Your task to perform on an android device: toggle notifications settings in the gmail app Image 0: 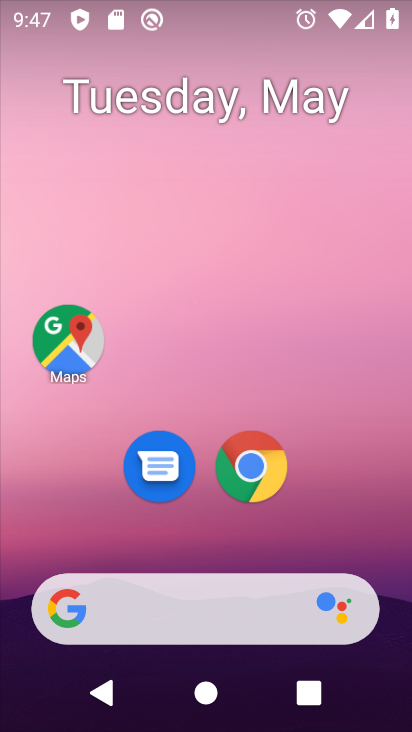
Step 0: drag from (280, 708) to (244, 28)
Your task to perform on an android device: toggle notifications settings in the gmail app Image 1: 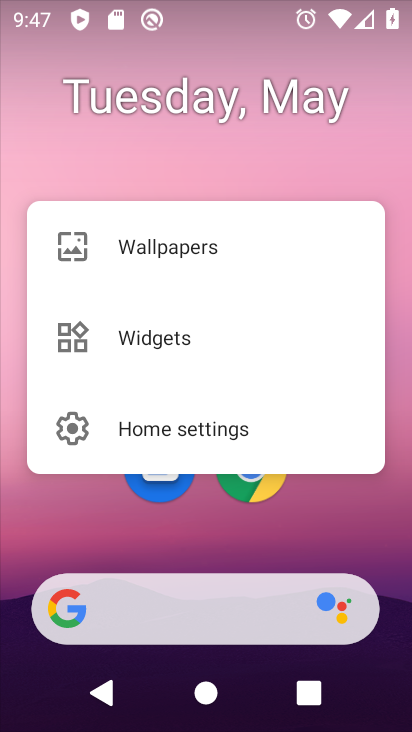
Step 1: press back button
Your task to perform on an android device: toggle notifications settings in the gmail app Image 2: 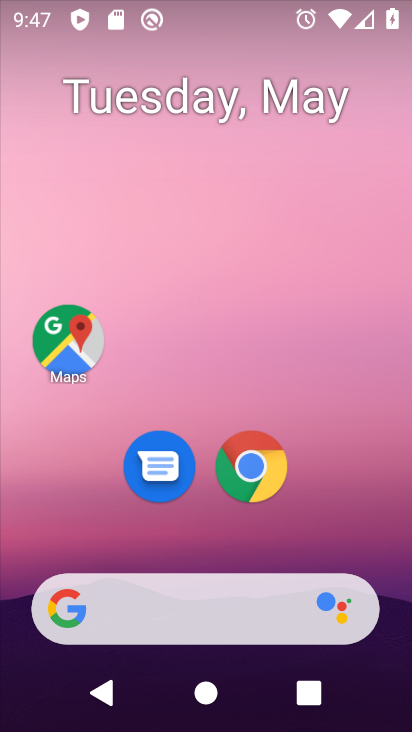
Step 2: click (248, 153)
Your task to perform on an android device: toggle notifications settings in the gmail app Image 3: 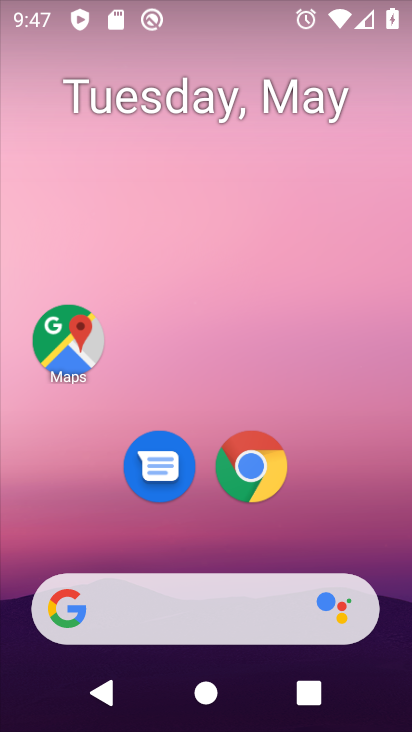
Step 3: drag from (351, 693) to (173, 160)
Your task to perform on an android device: toggle notifications settings in the gmail app Image 4: 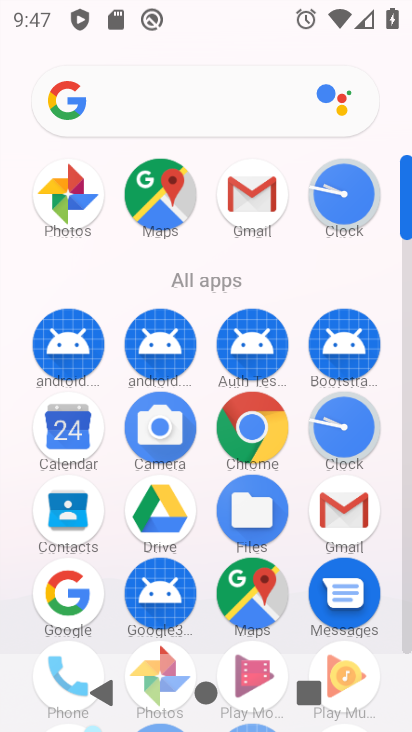
Step 4: click (350, 513)
Your task to perform on an android device: toggle notifications settings in the gmail app Image 5: 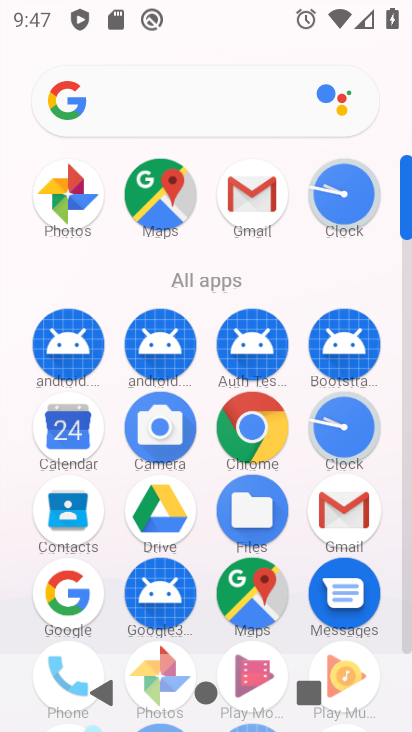
Step 5: click (344, 514)
Your task to perform on an android device: toggle notifications settings in the gmail app Image 6: 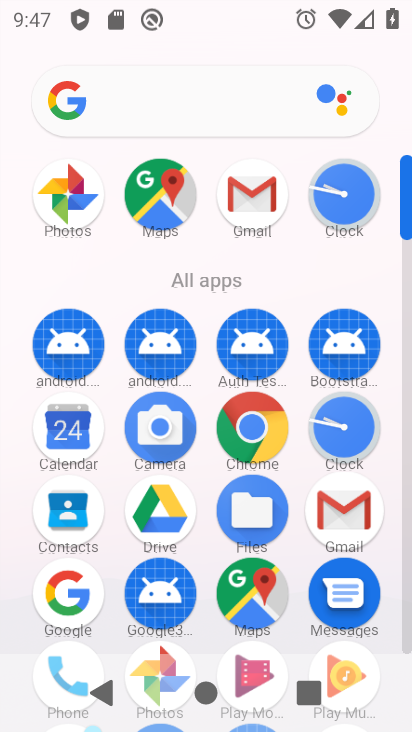
Step 6: click (344, 514)
Your task to perform on an android device: toggle notifications settings in the gmail app Image 7: 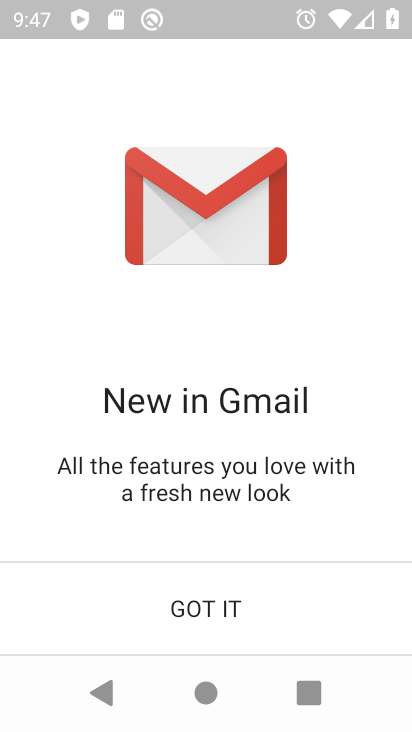
Step 7: click (204, 608)
Your task to perform on an android device: toggle notifications settings in the gmail app Image 8: 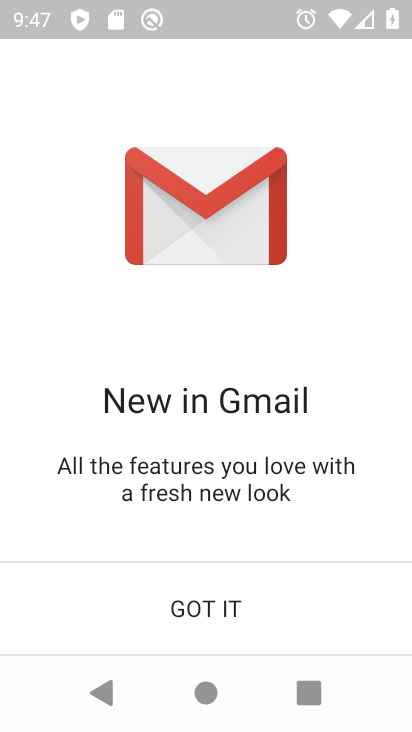
Step 8: click (227, 601)
Your task to perform on an android device: toggle notifications settings in the gmail app Image 9: 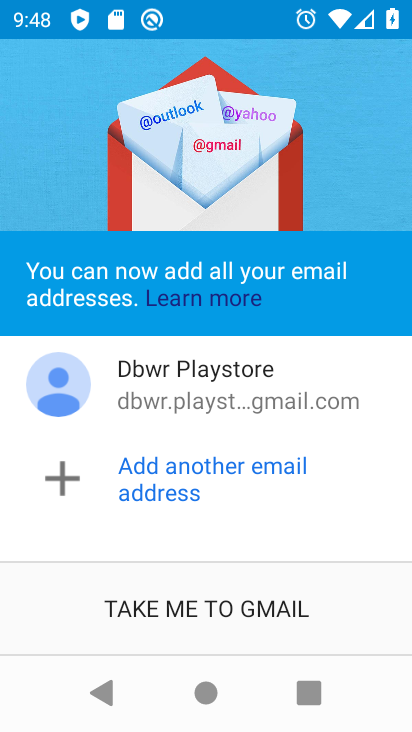
Step 9: click (208, 607)
Your task to perform on an android device: toggle notifications settings in the gmail app Image 10: 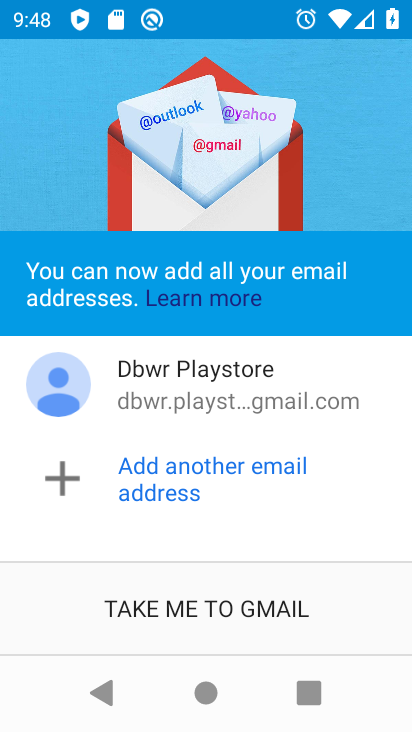
Step 10: click (206, 603)
Your task to perform on an android device: toggle notifications settings in the gmail app Image 11: 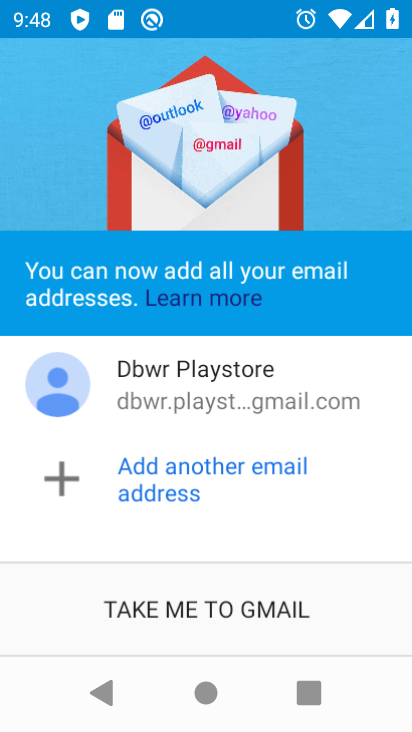
Step 11: click (206, 602)
Your task to perform on an android device: toggle notifications settings in the gmail app Image 12: 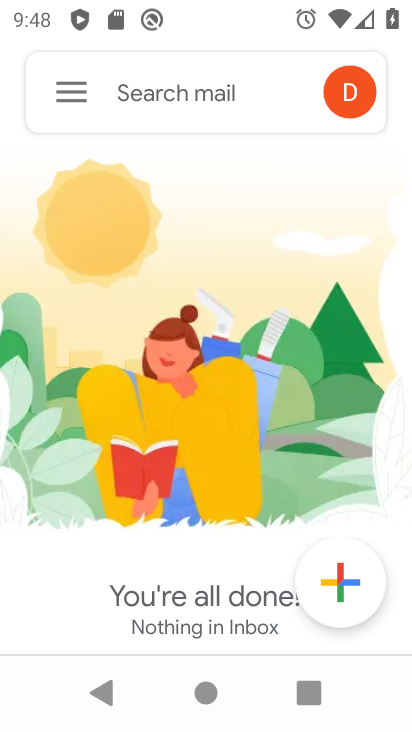
Step 12: press back button
Your task to perform on an android device: toggle notifications settings in the gmail app Image 13: 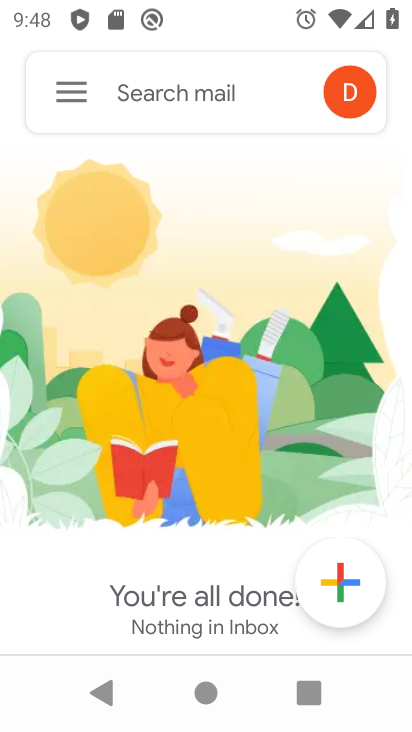
Step 13: press back button
Your task to perform on an android device: toggle notifications settings in the gmail app Image 14: 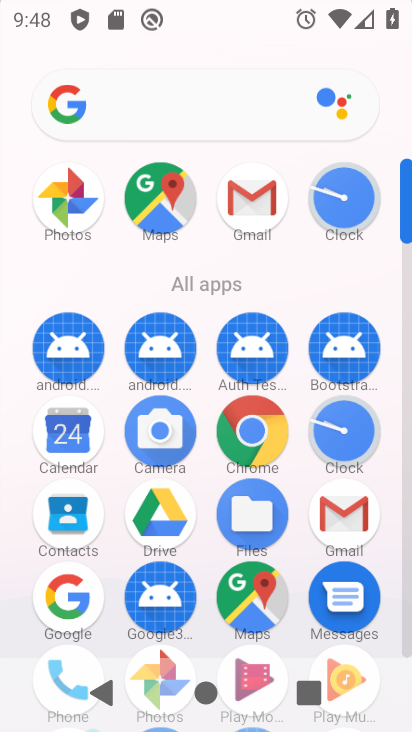
Step 14: press back button
Your task to perform on an android device: toggle notifications settings in the gmail app Image 15: 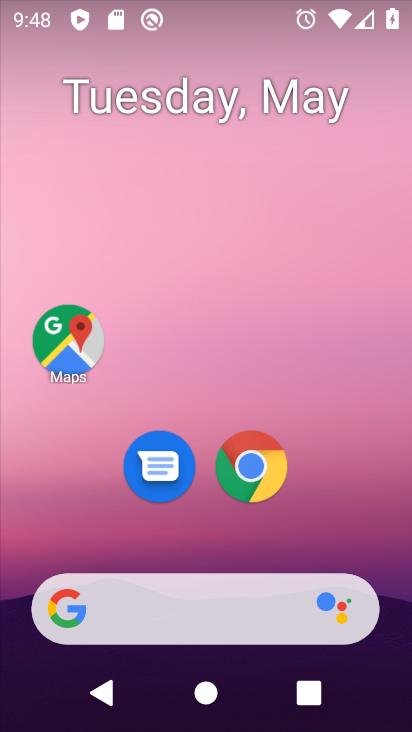
Step 15: drag from (230, 620) to (137, 161)
Your task to perform on an android device: toggle notifications settings in the gmail app Image 16: 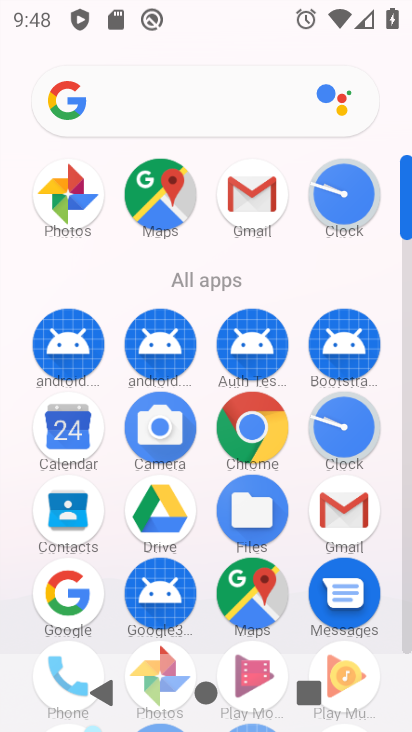
Step 16: click (343, 501)
Your task to perform on an android device: toggle notifications settings in the gmail app Image 17: 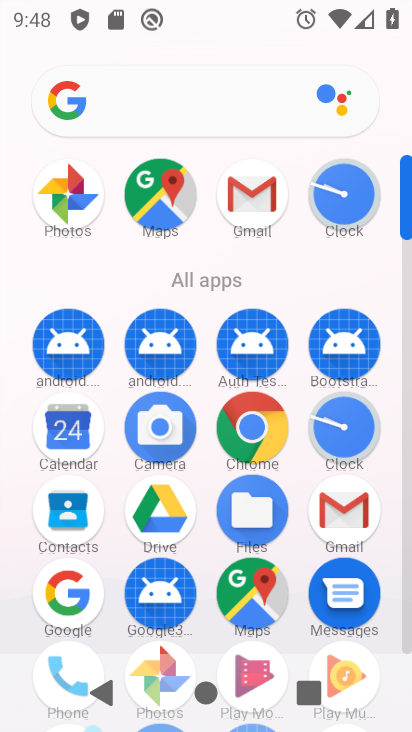
Step 17: click (347, 502)
Your task to perform on an android device: toggle notifications settings in the gmail app Image 18: 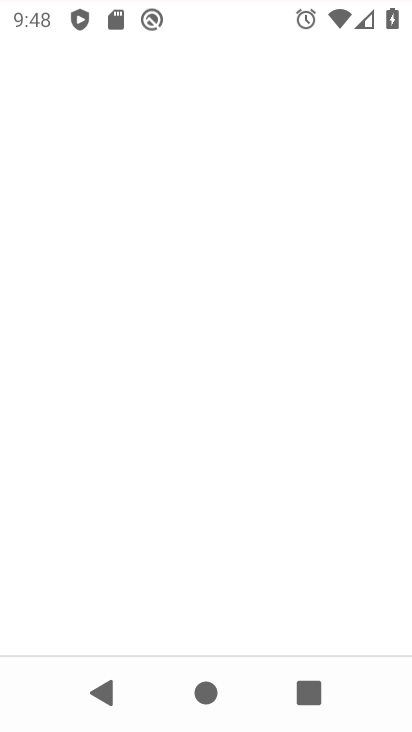
Step 18: click (349, 503)
Your task to perform on an android device: toggle notifications settings in the gmail app Image 19: 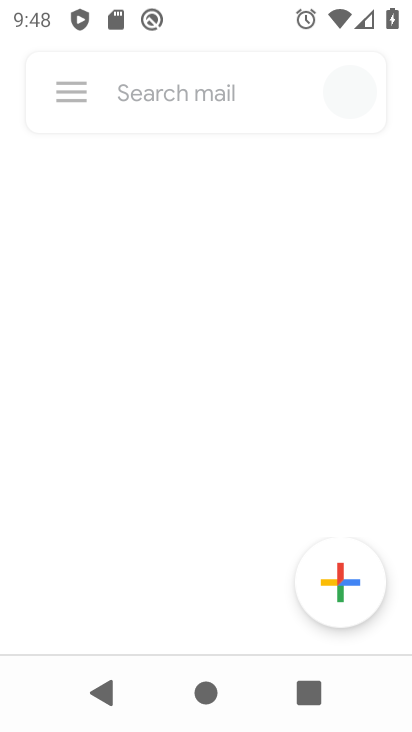
Step 19: click (349, 503)
Your task to perform on an android device: toggle notifications settings in the gmail app Image 20: 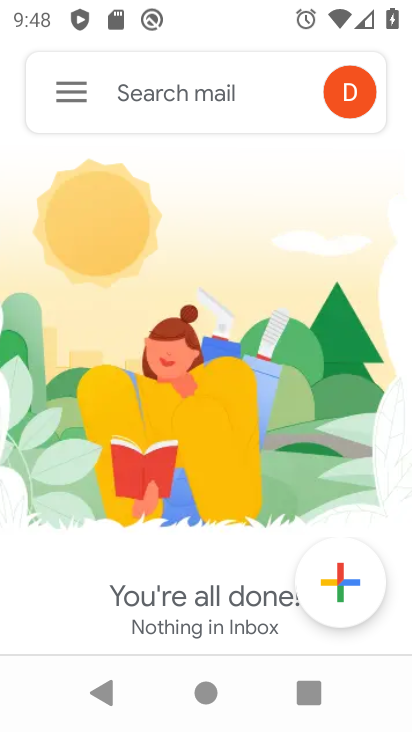
Step 20: click (65, 98)
Your task to perform on an android device: toggle notifications settings in the gmail app Image 21: 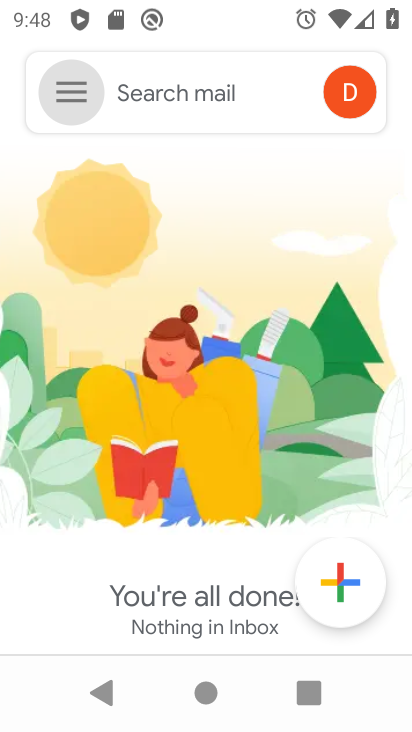
Step 21: drag from (67, 99) to (77, 368)
Your task to perform on an android device: toggle notifications settings in the gmail app Image 22: 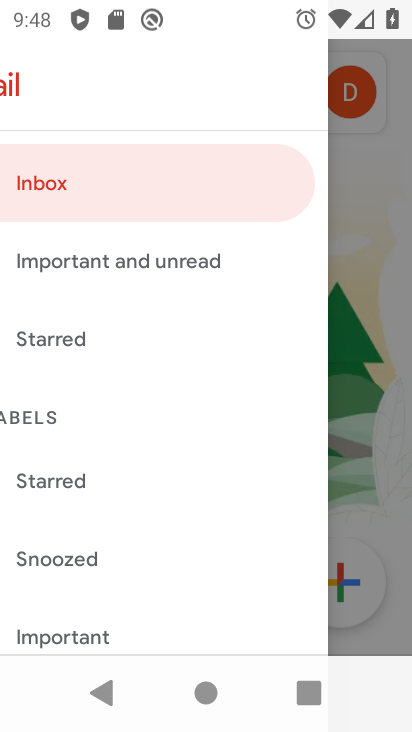
Step 22: drag from (78, 504) to (111, 307)
Your task to perform on an android device: toggle notifications settings in the gmail app Image 23: 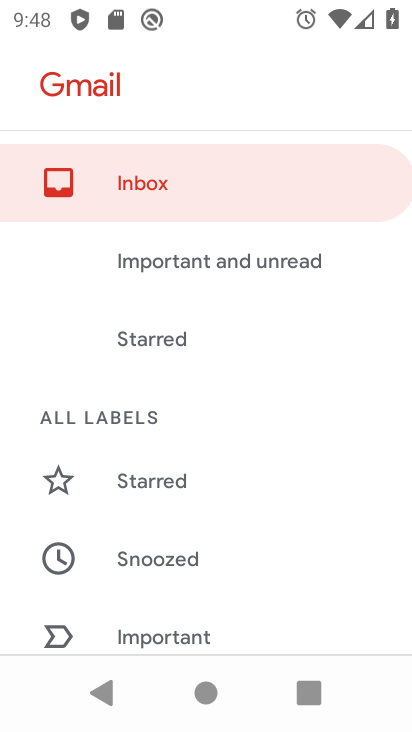
Step 23: drag from (181, 584) to (212, 278)
Your task to perform on an android device: toggle notifications settings in the gmail app Image 24: 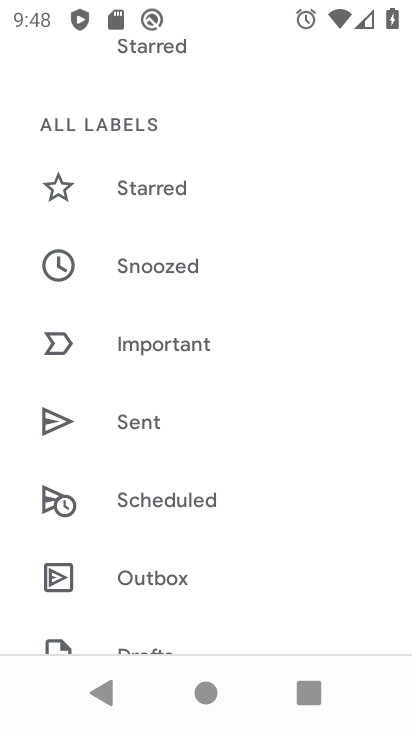
Step 24: drag from (203, 461) to (265, 138)
Your task to perform on an android device: toggle notifications settings in the gmail app Image 25: 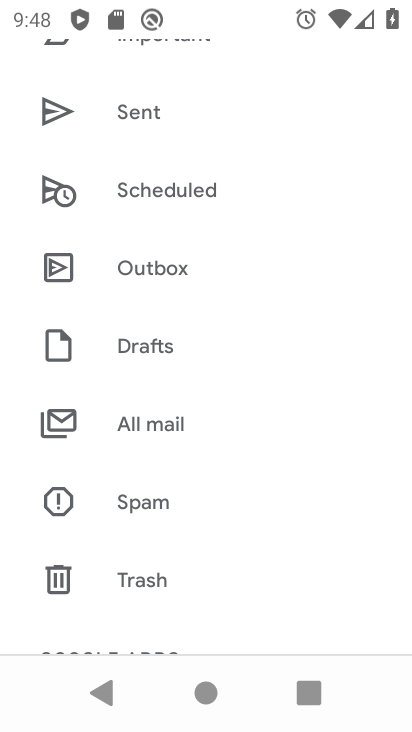
Step 25: drag from (170, 498) to (173, 160)
Your task to perform on an android device: toggle notifications settings in the gmail app Image 26: 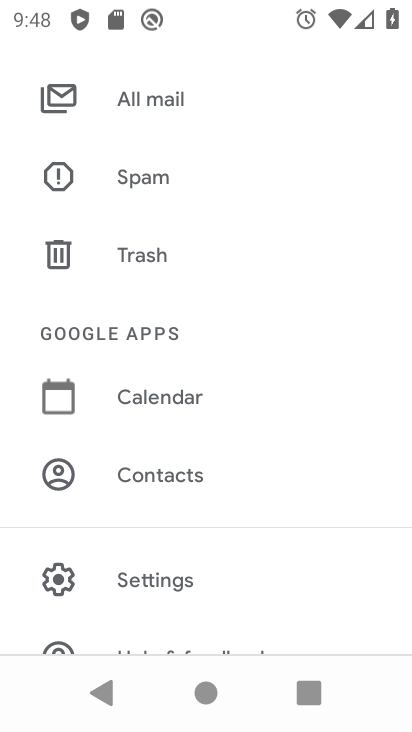
Step 26: drag from (206, 493) to (203, 129)
Your task to perform on an android device: toggle notifications settings in the gmail app Image 27: 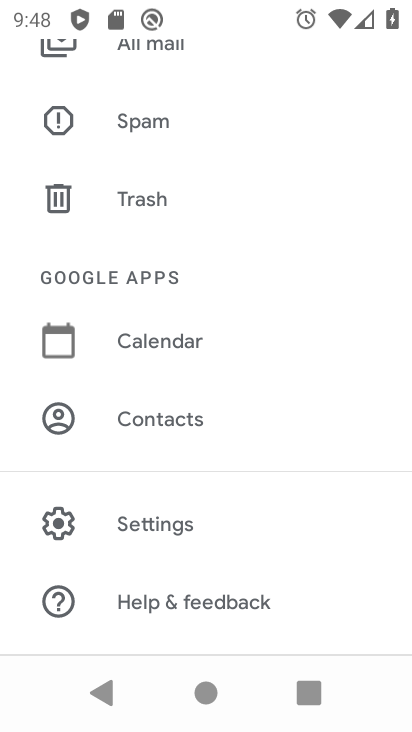
Step 27: drag from (198, 581) to (232, 190)
Your task to perform on an android device: toggle notifications settings in the gmail app Image 28: 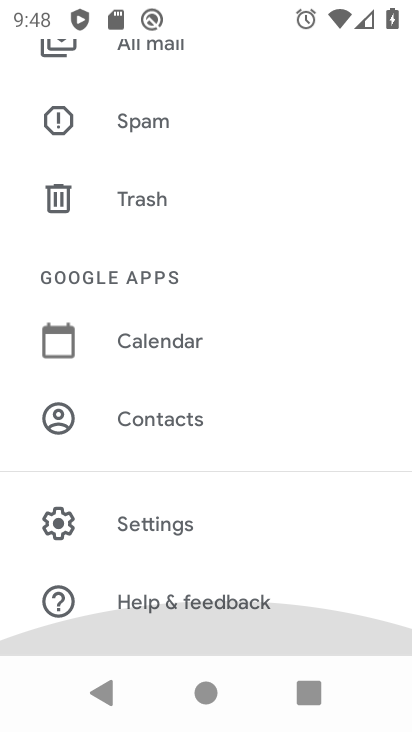
Step 28: drag from (205, 508) to (205, 103)
Your task to perform on an android device: toggle notifications settings in the gmail app Image 29: 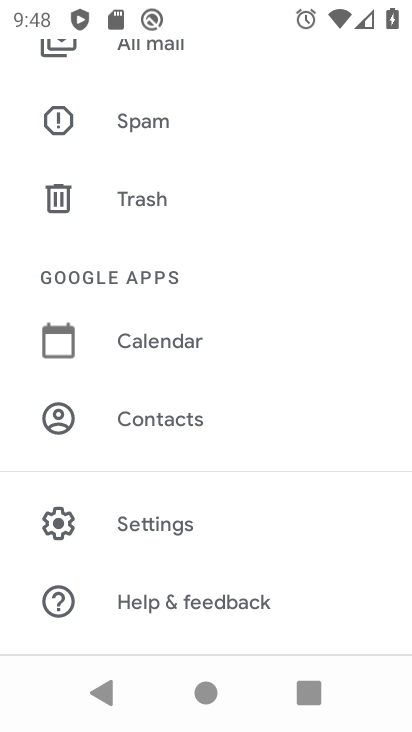
Step 29: click (146, 525)
Your task to perform on an android device: toggle notifications settings in the gmail app Image 30: 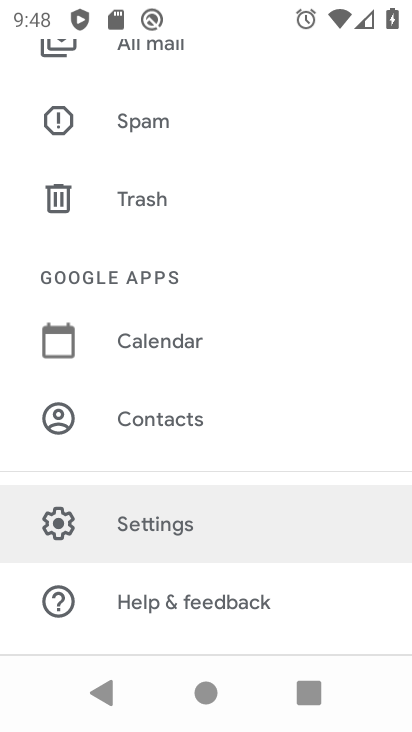
Step 30: click (146, 525)
Your task to perform on an android device: toggle notifications settings in the gmail app Image 31: 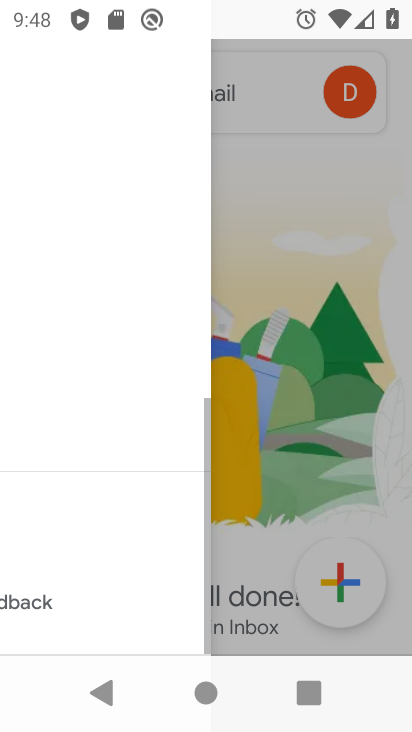
Step 31: click (148, 521)
Your task to perform on an android device: toggle notifications settings in the gmail app Image 32: 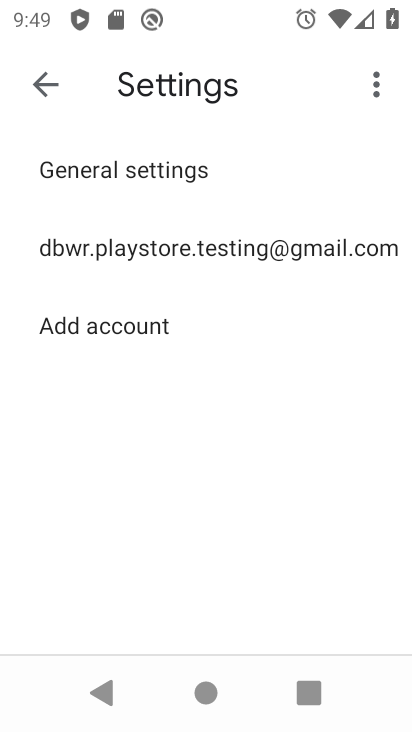
Step 32: click (194, 240)
Your task to perform on an android device: toggle notifications settings in the gmail app Image 33: 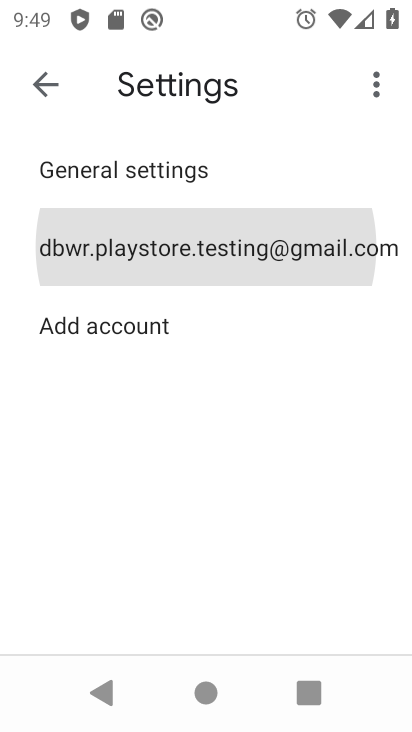
Step 33: click (194, 240)
Your task to perform on an android device: toggle notifications settings in the gmail app Image 34: 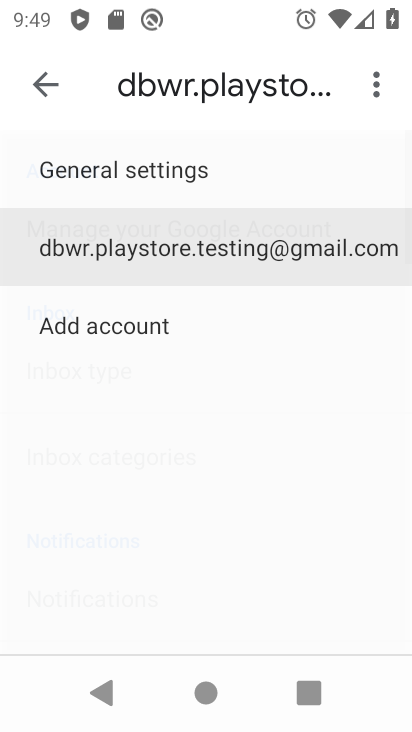
Step 34: click (194, 240)
Your task to perform on an android device: toggle notifications settings in the gmail app Image 35: 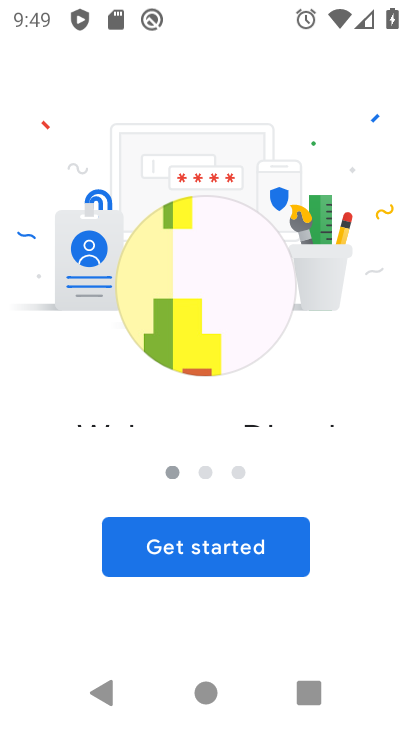
Step 35: press back button
Your task to perform on an android device: toggle notifications settings in the gmail app Image 36: 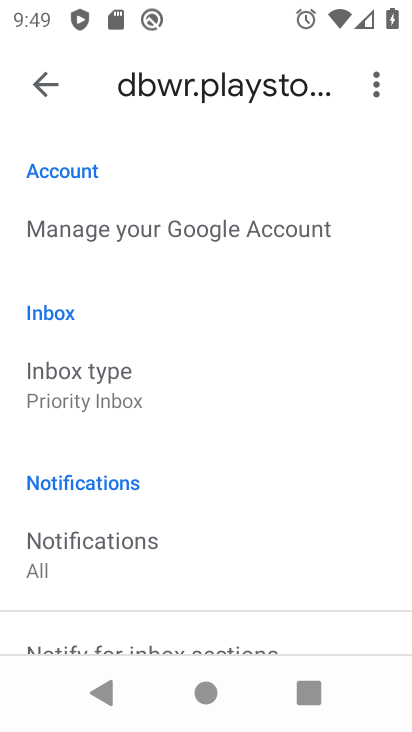
Step 36: click (48, 545)
Your task to perform on an android device: toggle notifications settings in the gmail app Image 37: 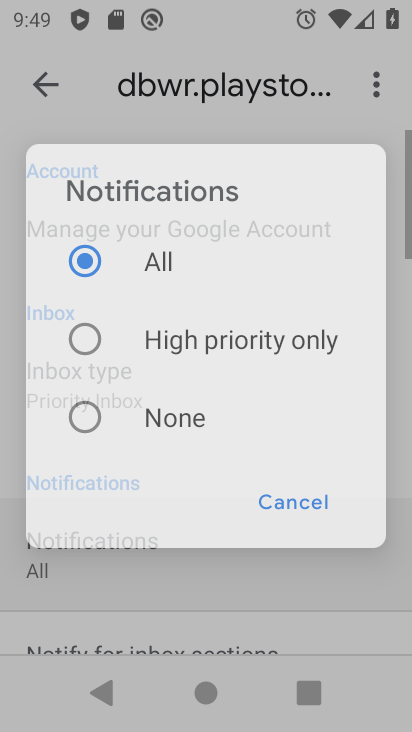
Step 37: click (51, 542)
Your task to perform on an android device: toggle notifications settings in the gmail app Image 38: 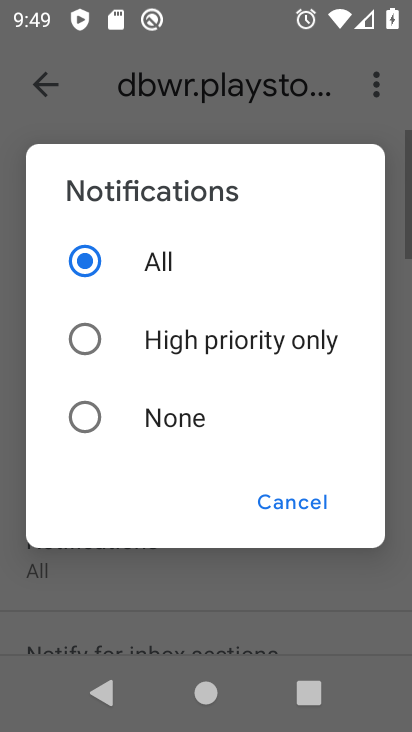
Step 38: click (51, 542)
Your task to perform on an android device: toggle notifications settings in the gmail app Image 39: 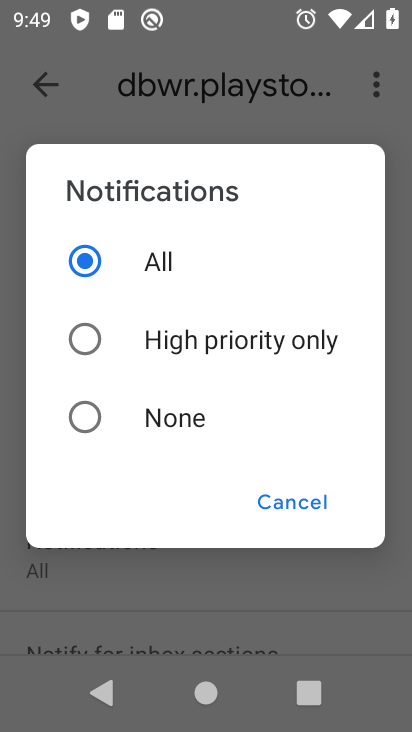
Step 39: click (83, 334)
Your task to perform on an android device: toggle notifications settings in the gmail app Image 40: 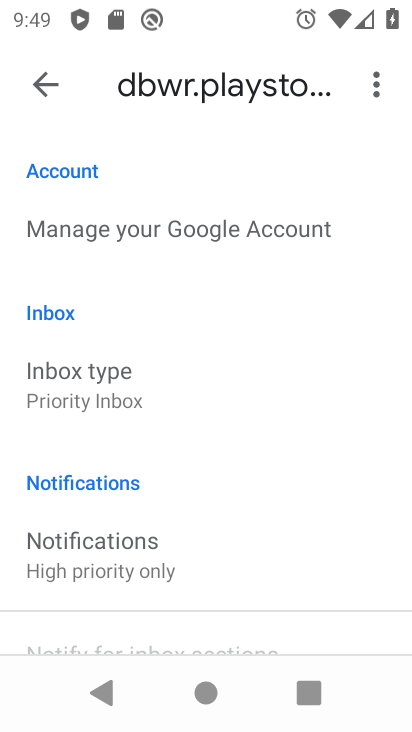
Step 40: task complete